Your task to perform on an android device: Open the phone app and click the voicemail tab. Image 0: 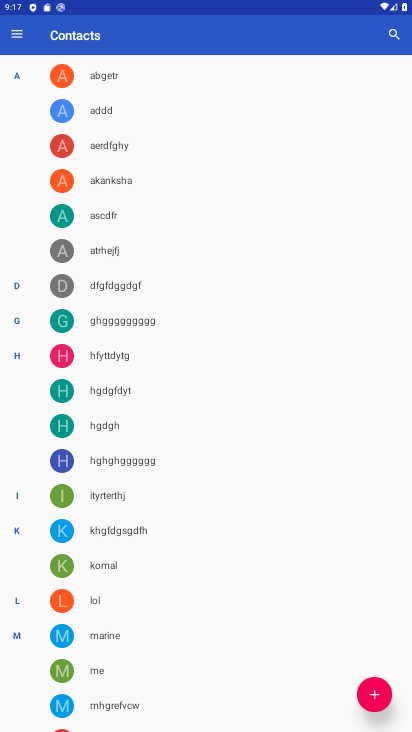
Step 0: press home button
Your task to perform on an android device: Open the phone app and click the voicemail tab. Image 1: 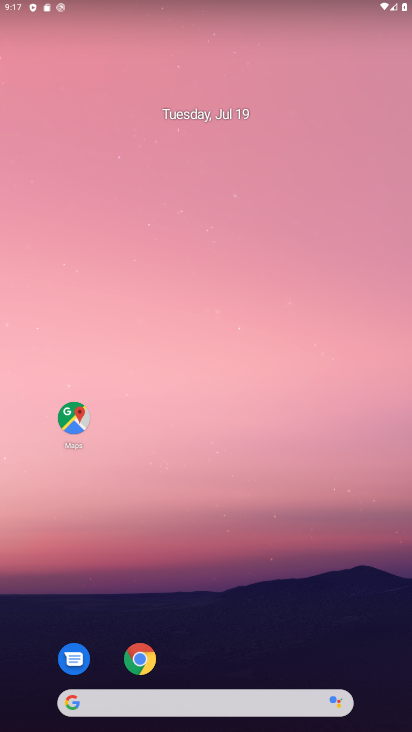
Step 1: drag from (209, 475) to (285, 230)
Your task to perform on an android device: Open the phone app and click the voicemail tab. Image 2: 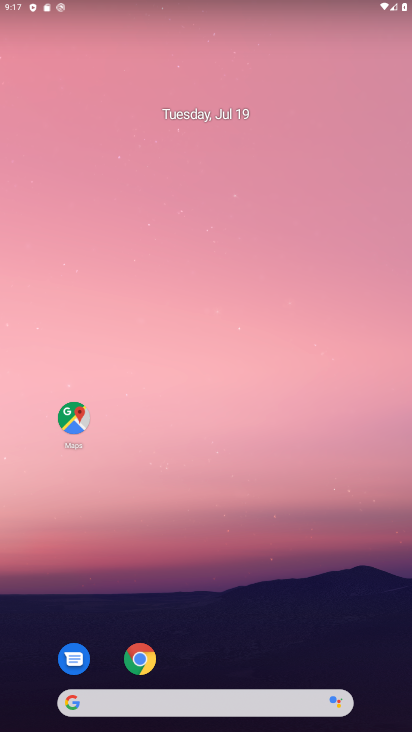
Step 2: drag from (191, 634) to (272, 215)
Your task to perform on an android device: Open the phone app and click the voicemail tab. Image 3: 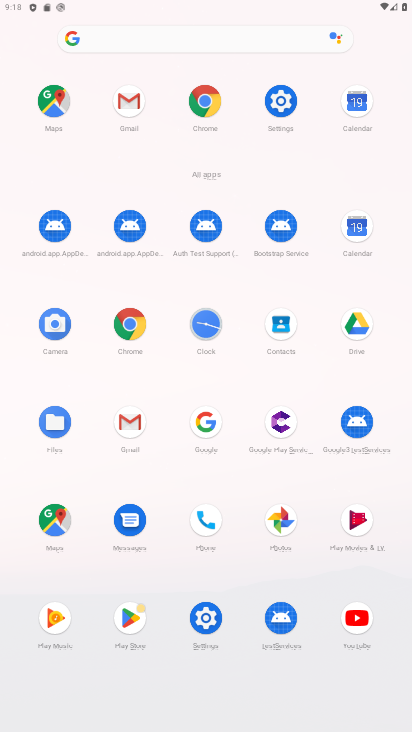
Step 3: click (203, 518)
Your task to perform on an android device: Open the phone app and click the voicemail tab. Image 4: 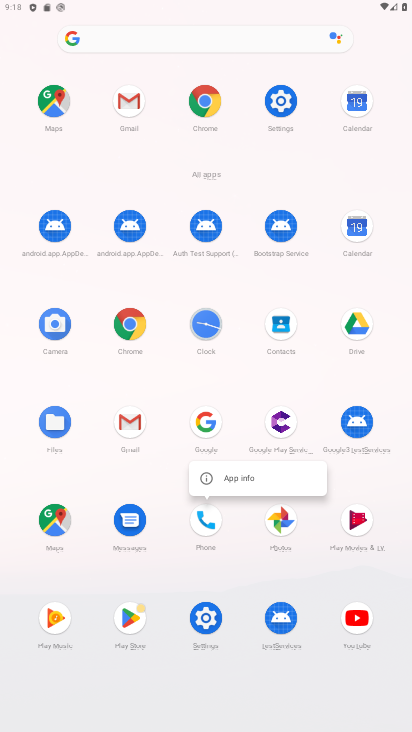
Step 4: click (227, 474)
Your task to perform on an android device: Open the phone app and click the voicemail tab. Image 5: 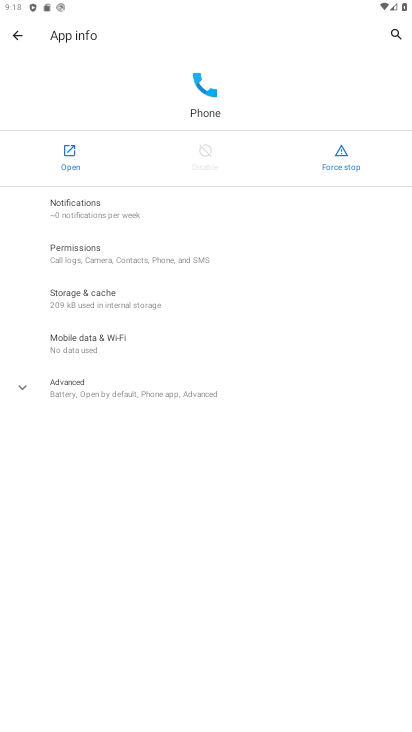
Step 5: click (70, 166)
Your task to perform on an android device: Open the phone app and click the voicemail tab. Image 6: 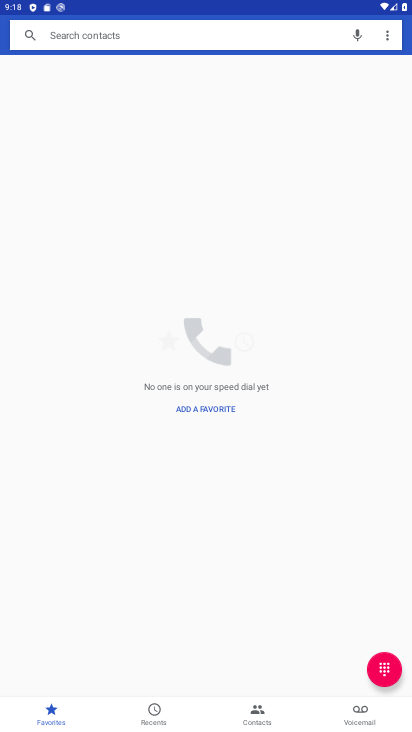
Step 6: drag from (215, 612) to (261, 430)
Your task to perform on an android device: Open the phone app and click the voicemail tab. Image 7: 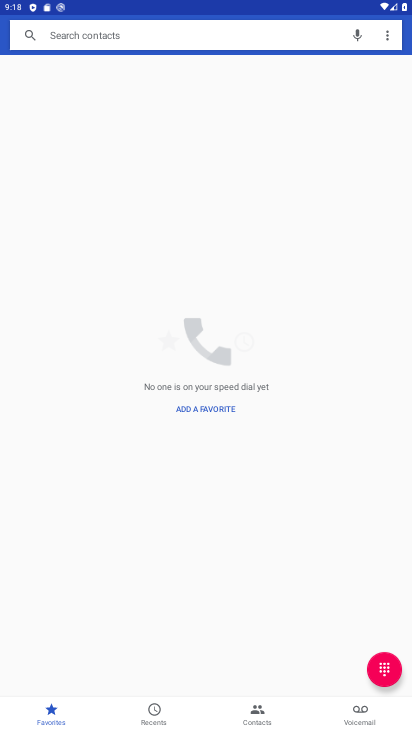
Step 7: click (357, 710)
Your task to perform on an android device: Open the phone app and click the voicemail tab. Image 8: 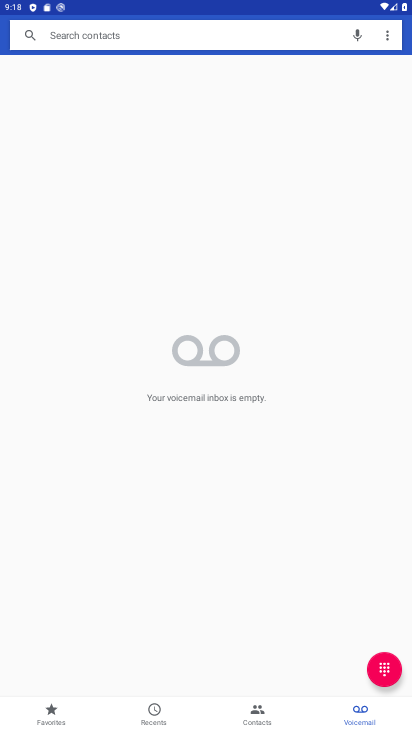
Step 8: task complete